Your task to perform on an android device: Open sound settings Image 0: 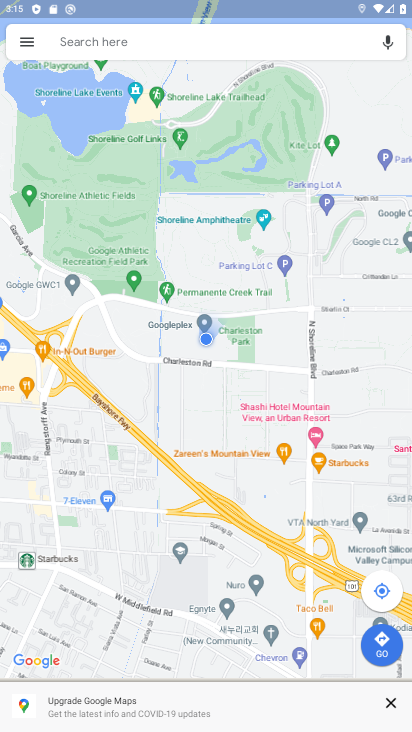
Step 0: press home button
Your task to perform on an android device: Open sound settings Image 1: 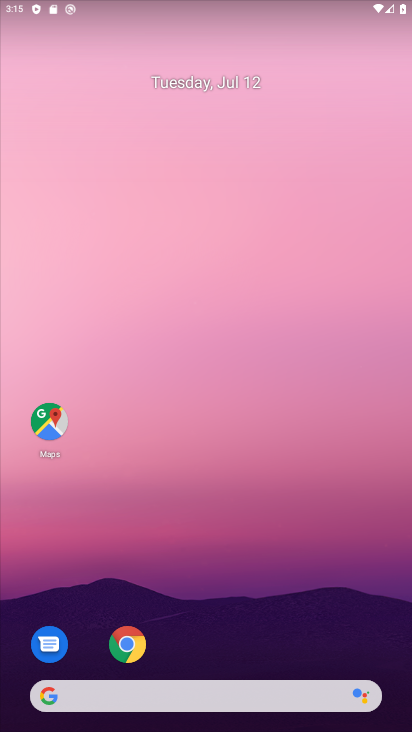
Step 1: drag from (258, 612) to (226, 146)
Your task to perform on an android device: Open sound settings Image 2: 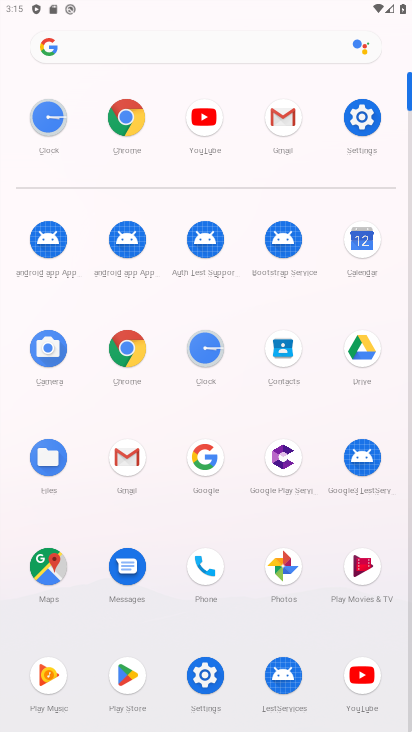
Step 2: click (365, 119)
Your task to perform on an android device: Open sound settings Image 3: 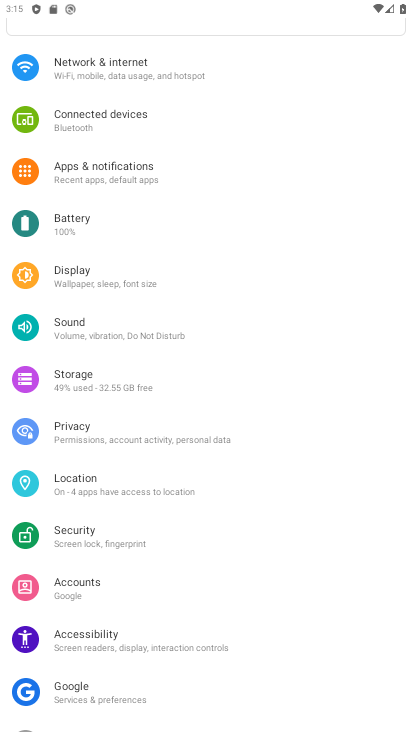
Step 3: click (77, 323)
Your task to perform on an android device: Open sound settings Image 4: 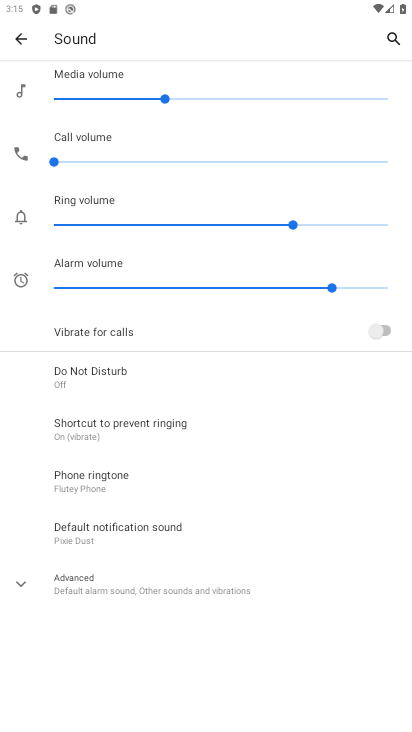
Step 4: task complete